Your task to perform on an android device: Open the Play Movies app and select the watchlist tab. Image 0: 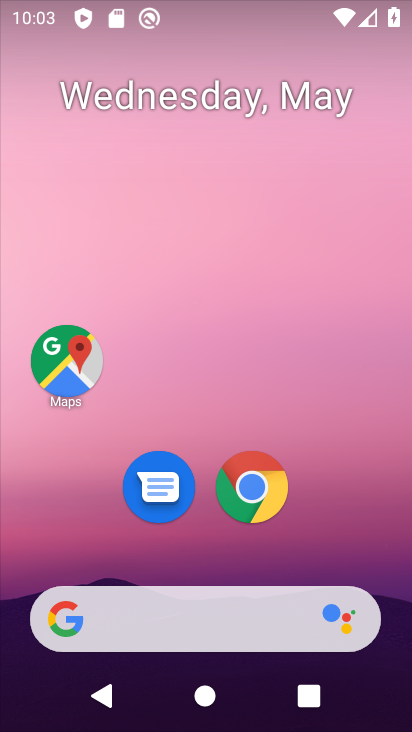
Step 0: drag from (388, 592) to (316, 27)
Your task to perform on an android device: Open the Play Movies app and select the watchlist tab. Image 1: 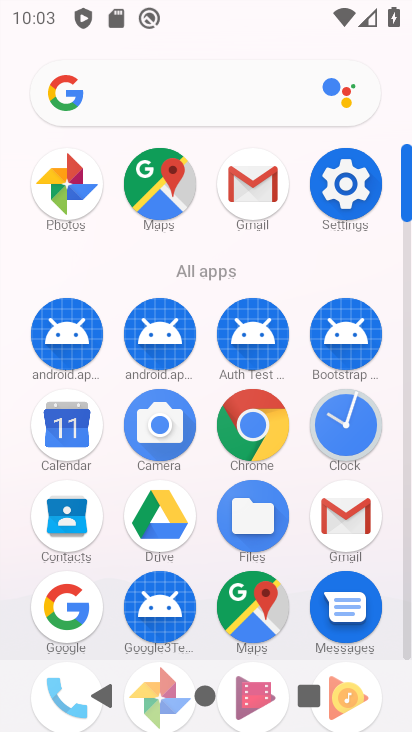
Step 1: drag from (13, 604) to (10, 322)
Your task to perform on an android device: Open the Play Movies app and select the watchlist tab. Image 2: 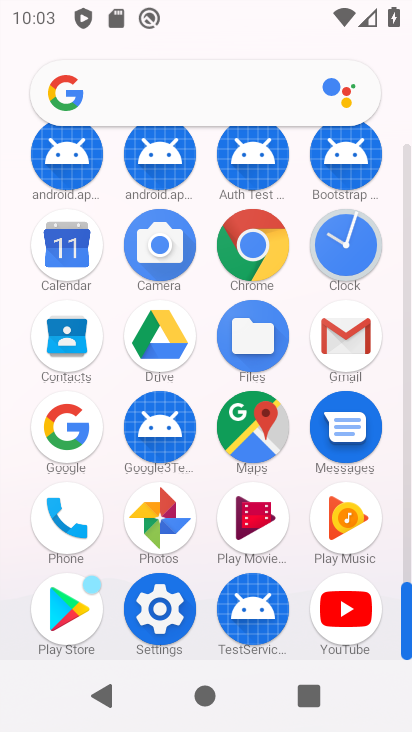
Step 2: click (256, 510)
Your task to perform on an android device: Open the Play Movies app and select the watchlist tab. Image 3: 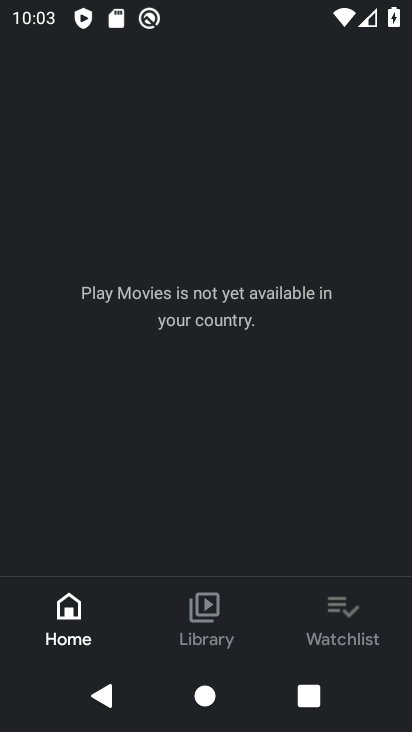
Step 3: click (345, 616)
Your task to perform on an android device: Open the Play Movies app and select the watchlist tab. Image 4: 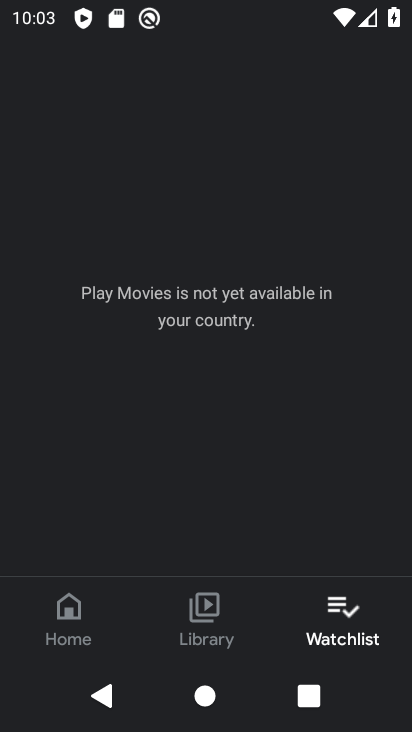
Step 4: task complete